Your task to perform on an android device: Go to Amazon Image 0: 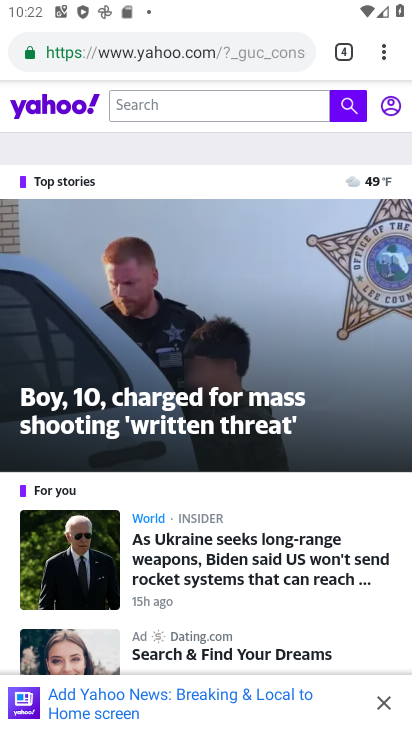
Step 0: click (352, 53)
Your task to perform on an android device: Go to Amazon Image 1: 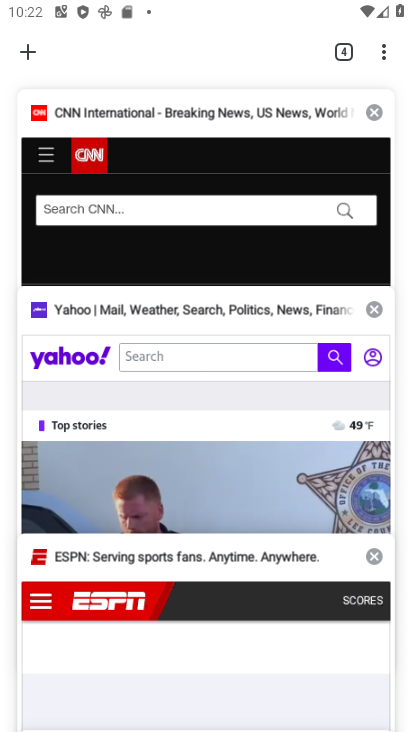
Step 1: drag from (171, 531) to (243, 150)
Your task to perform on an android device: Go to Amazon Image 2: 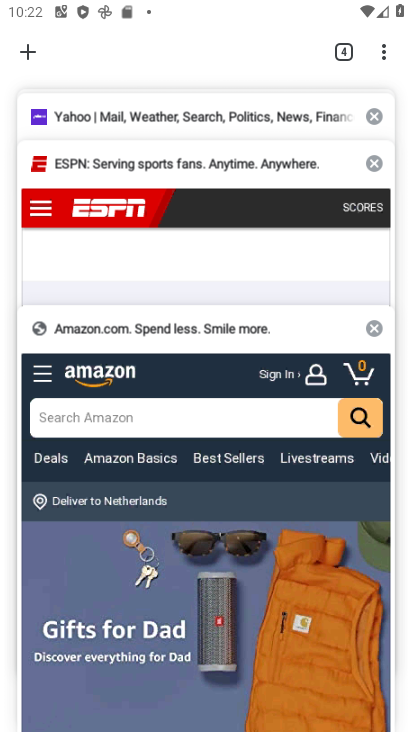
Step 2: click (186, 388)
Your task to perform on an android device: Go to Amazon Image 3: 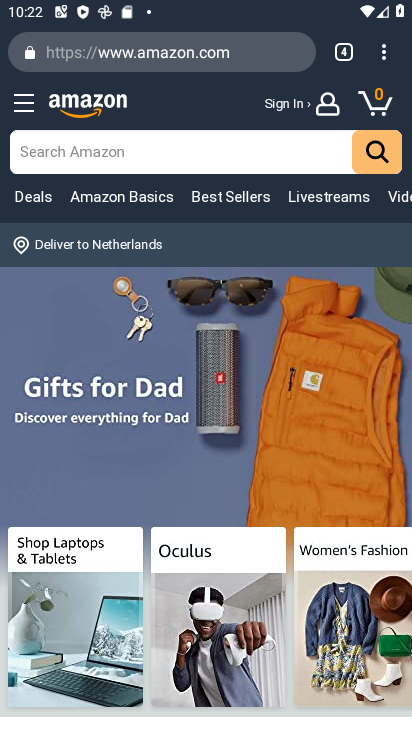
Step 3: task complete